Your task to perform on an android device: Show me popular videos on Youtube Image 0: 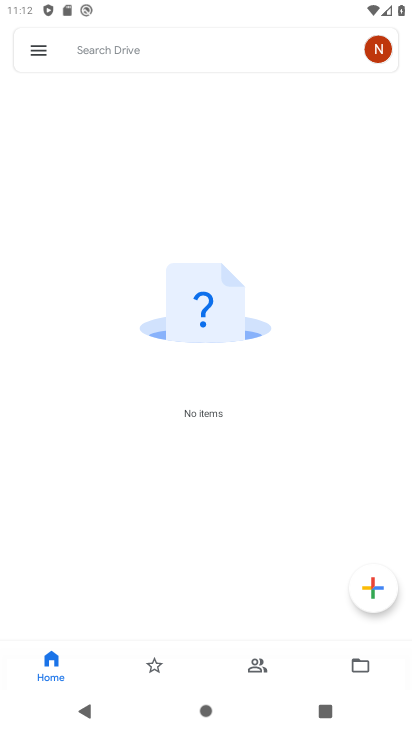
Step 0: press home button
Your task to perform on an android device: Show me popular videos on Youtube Image 1: 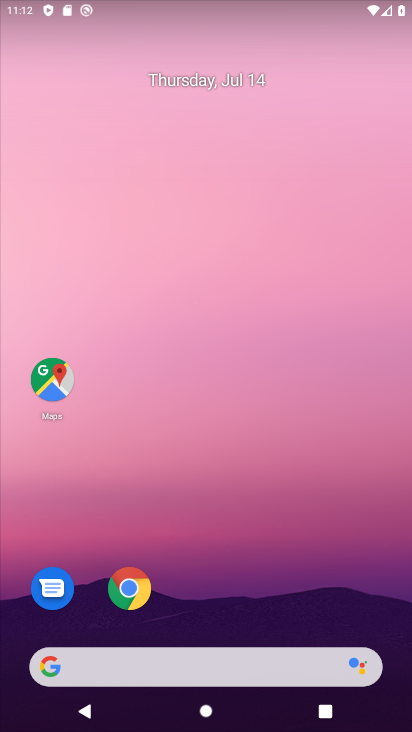
Step 1: drag from (288, 601) to (264, 35)
Your task to perform on an android device: Show me popular videos on Youtube Image 2: 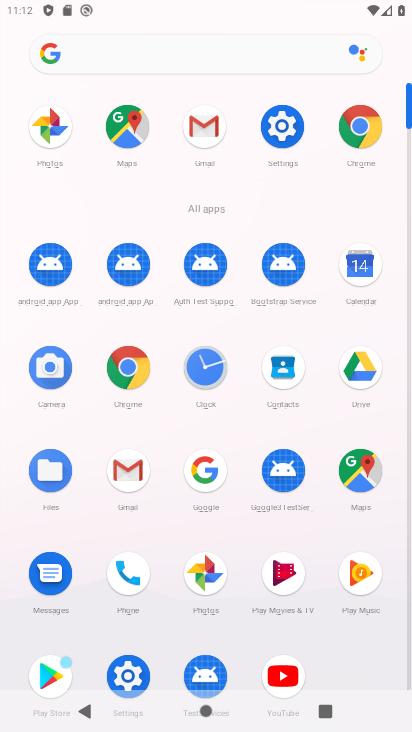
Step 2: click (278, 664)
Your task to perform on an android device: Show me popular videos on Youtube Image 3: 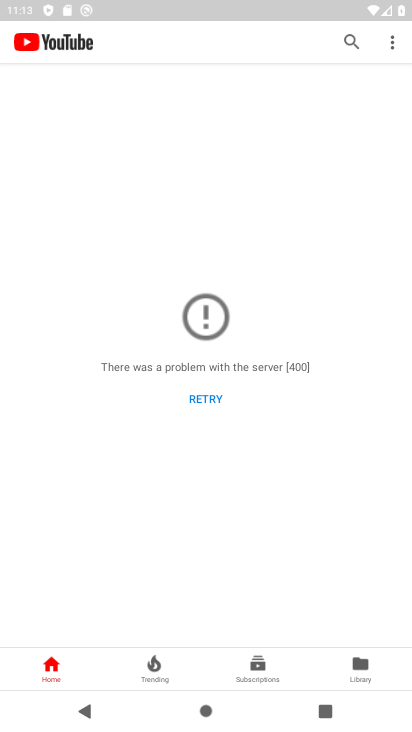
Step 3: click (216, 381)
Your task to perform on an android device: Show me popular videos on Youtube Image 4: 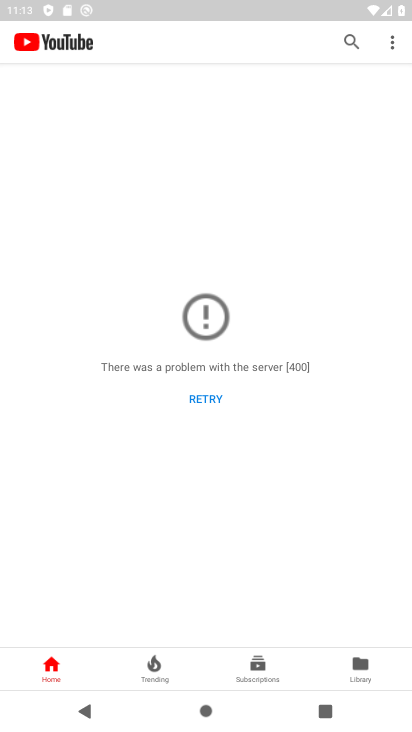
Step 4: click (202, 400)
Your task to perform on an android device: Show me popular videos on Youtube Image 5: 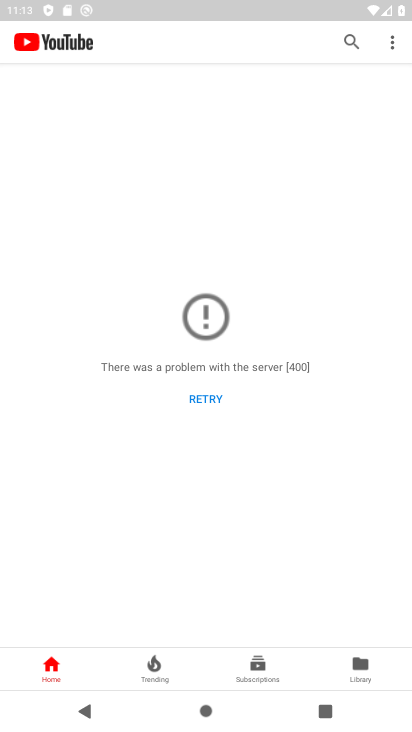
Step 5: click (204, 399)
Your task to perform on an android device: Show me popular videos on Youtube Image 6: 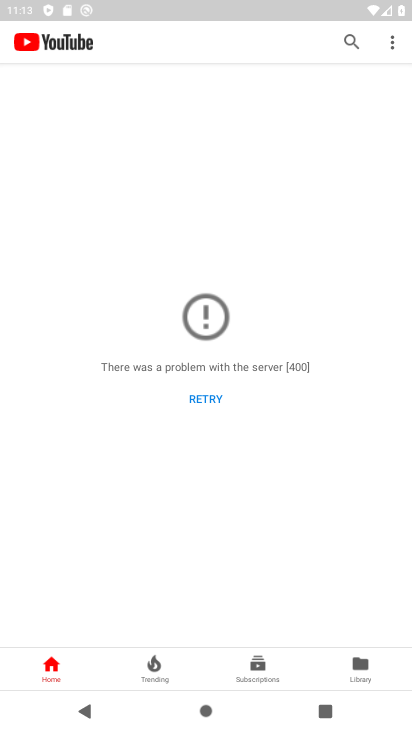
Step 6: click (206, 398)
Your task to perform on an android device: Show me popular videos on Youtube Image 7: 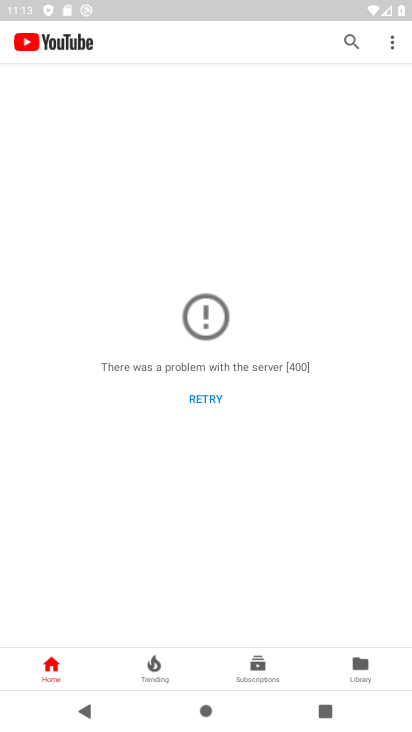
Step 7: click (206, 402)
Your task to perform on an android device: Show me popular videos on Youtube Image 8: 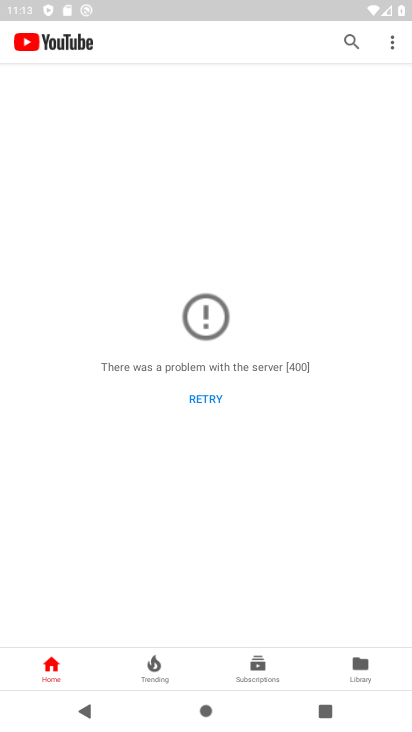
Step 8: click (209, 405)
Your task to perform on an android device: Show me popular videos on Youtube Image 9: 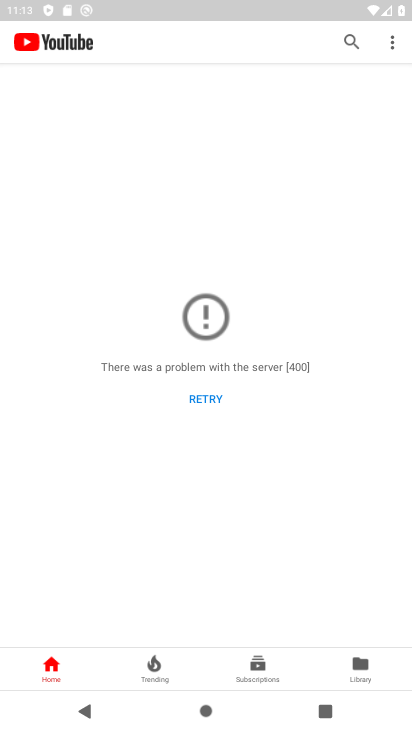
Step 9: task complete